Your task to perform on an android device: check data usage Image 0: 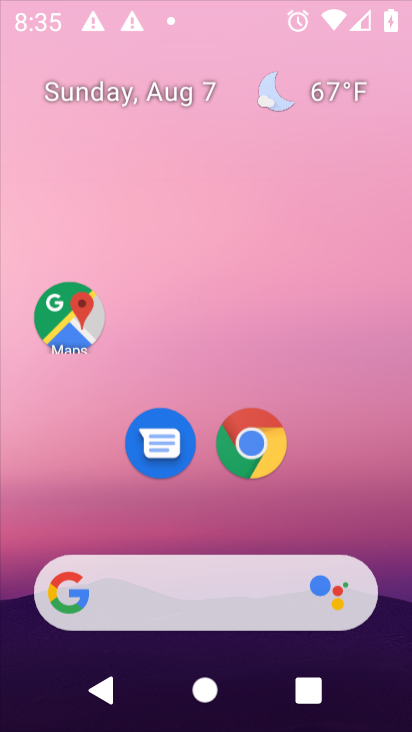
Step 0: press home button
Your task to perform on an android device: check data usage Image 1: 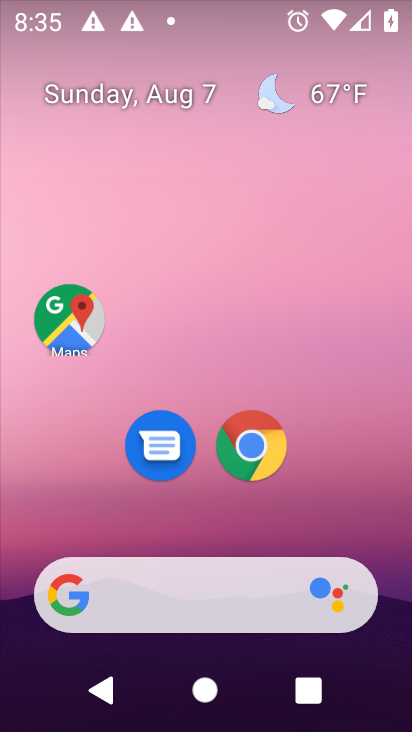
Step 1: drag from (207, 501) to (280, 3)
Your task to perform on an android device: check data usage Image 2: 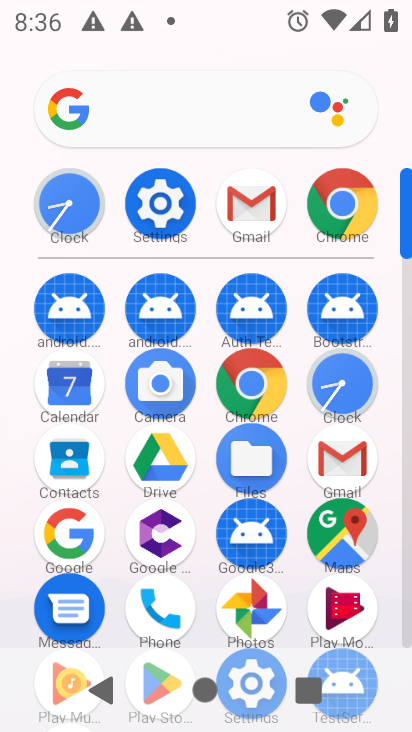
Step 2: click (161, 186)
Your task to perform on an android device: check data usage Image 3: 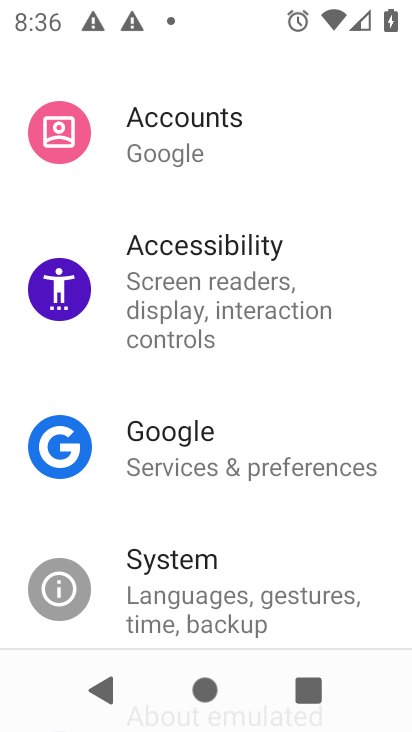
Step 3: drag from (206, 148) to (227, 633)
Your task to perform on an android device: check data usage Image 4: 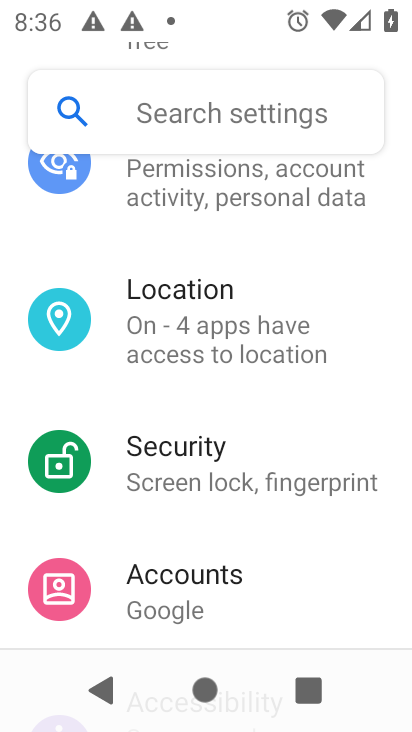
Step 4: drag from (212, 203) to (215, 657)
Your task to perform on an android device: check data usage Image 5: 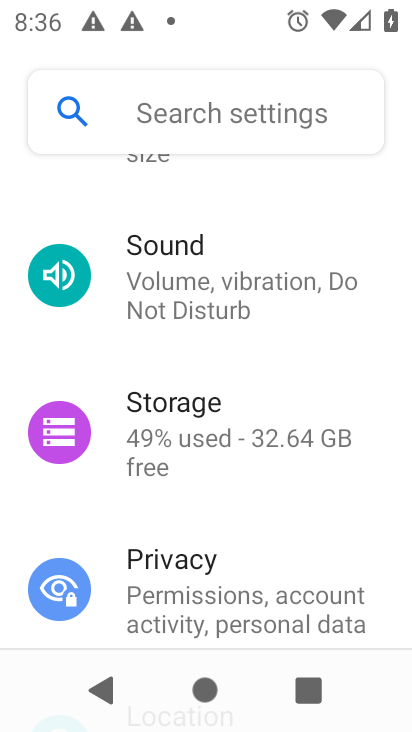
Step 5: drag from (217, 192) to (262, 697)
Your task to perform on an android device: check data usage Image 6: 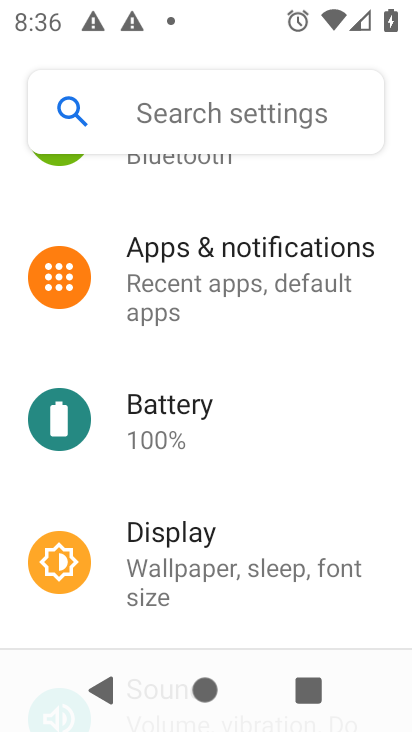
Step 6: drag from (182, 173) to (217, 681)
Your task to perform on an android device: check data usage Image 7: 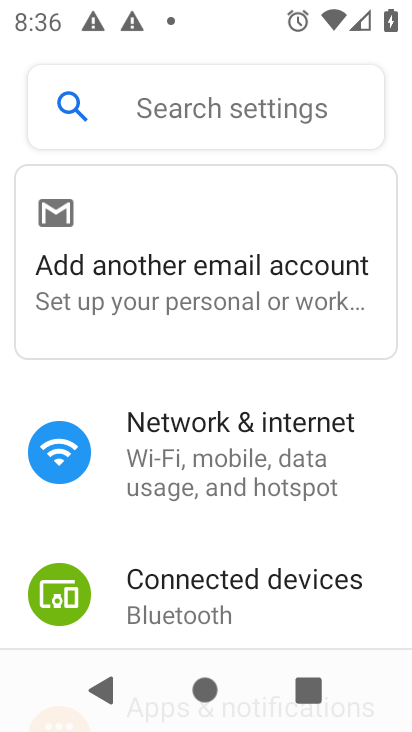
Step 7: click (175, 451)
Your task to perform on an android device: check data usage Image 8: 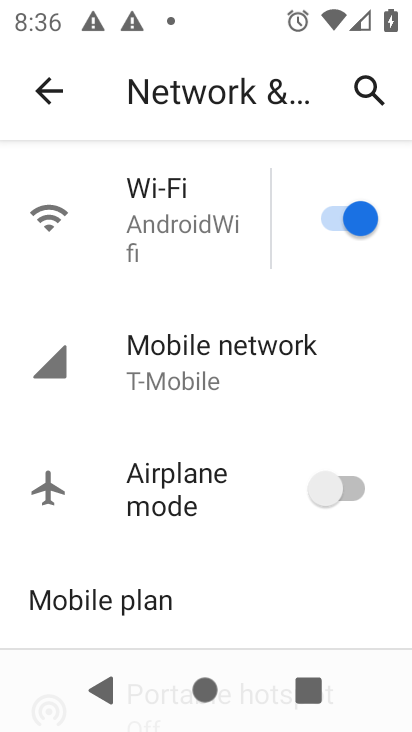
Step 8: click (243, 368)
Your task to perform on an android device: check data usage Image 9: 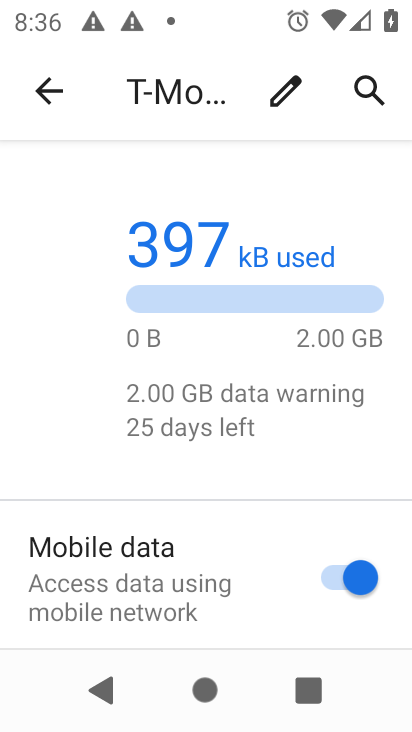
Step 9: drag from (237, 613) to (246, 233)
Your task to perform on an android device: check data usage Image 10: 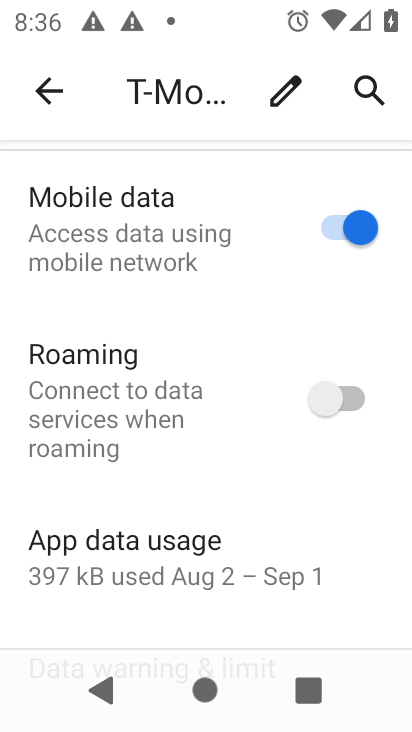
Step 10: click (246, 549)
Your task to perform on an android device: check data usage Image 11: 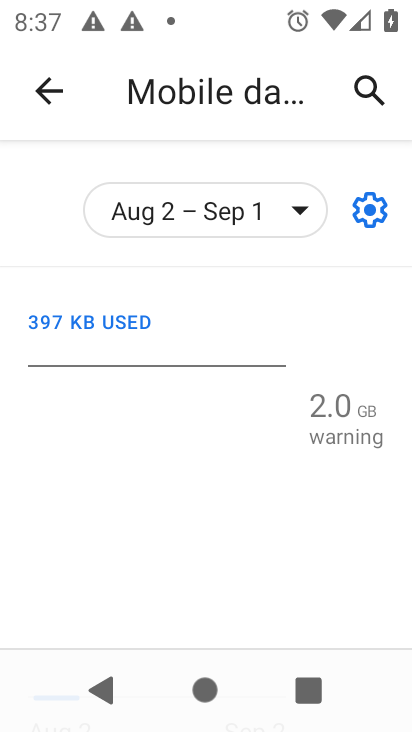
Step 11: task complete